Your task to perform on an android device: Open network settings Image 0: 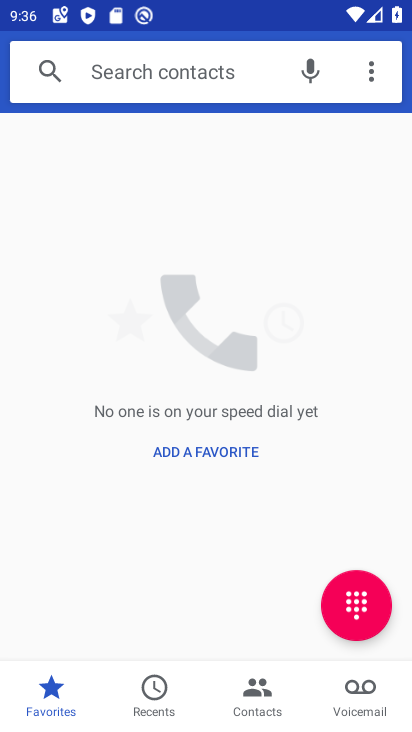
Step 0: press home button
Your task to perform on an android device: Open network settings Image 1: 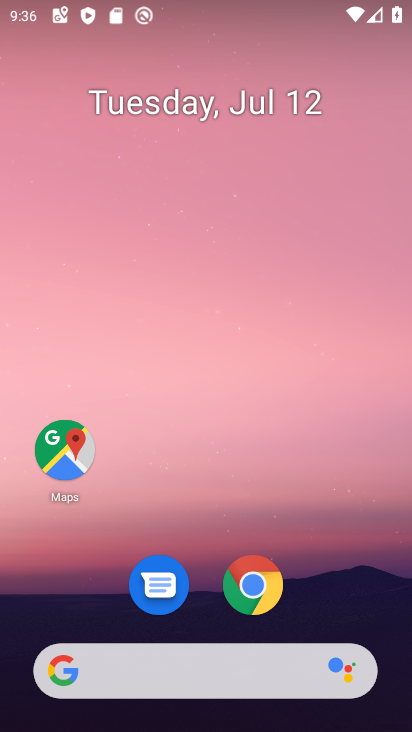
Step 1: drag from (210, 664) to (366, 97)
Your task to perform on an android device: Open network settings Image 2: 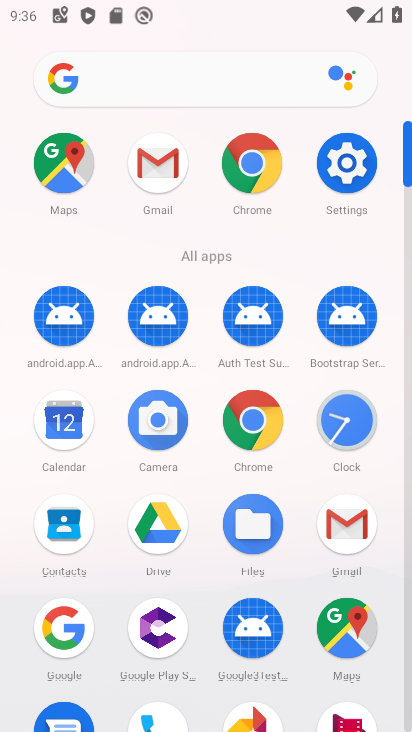
Step 2: click (349, 168)
Your task to perform on an android device: Open network settings Image 3: 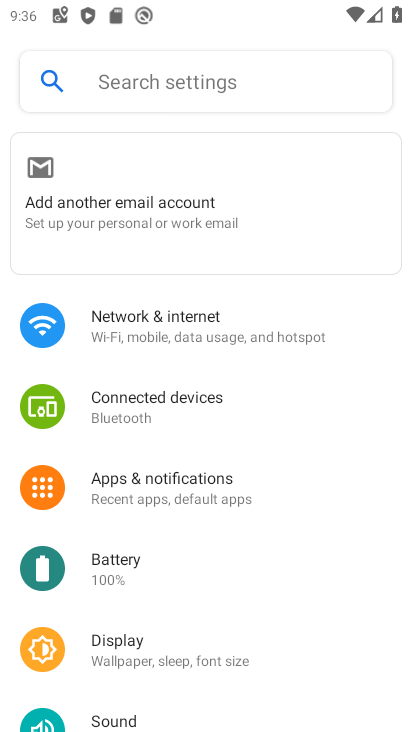
Step 3: click (182, 321)
Your task to perform on an android device: Open network settings Image 4: 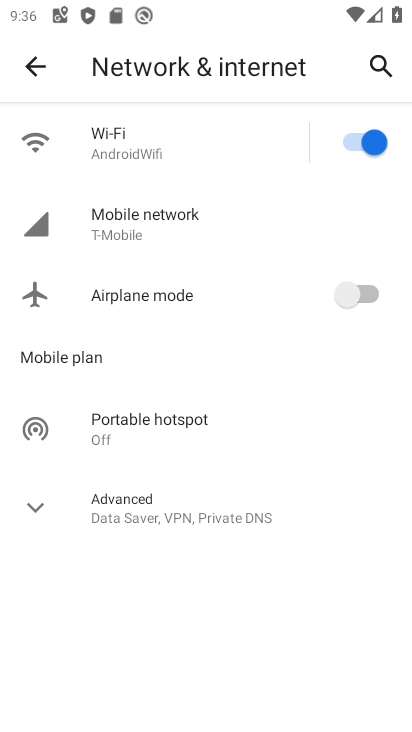
Step 4: click (146, 228)
Your task to perform on an android device: Open network settings Image 5: 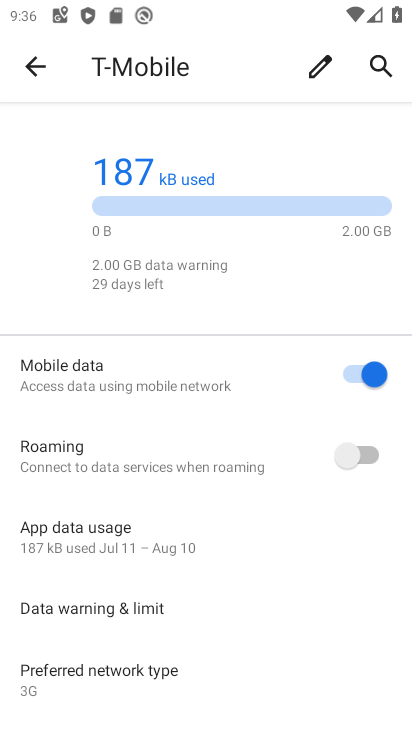
Step 5: task complete